Your task to perform on an android device: Is it going to rain this weekend? Image 0: 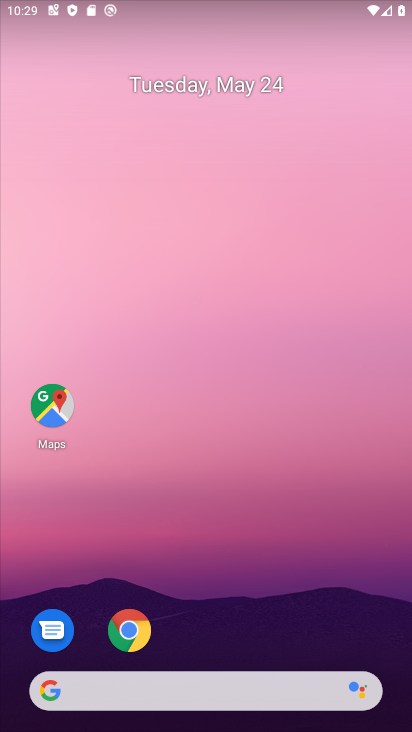
Step 0: press home button
Your task to perform on an android device: Is it going to rain this weekend? Image 1: 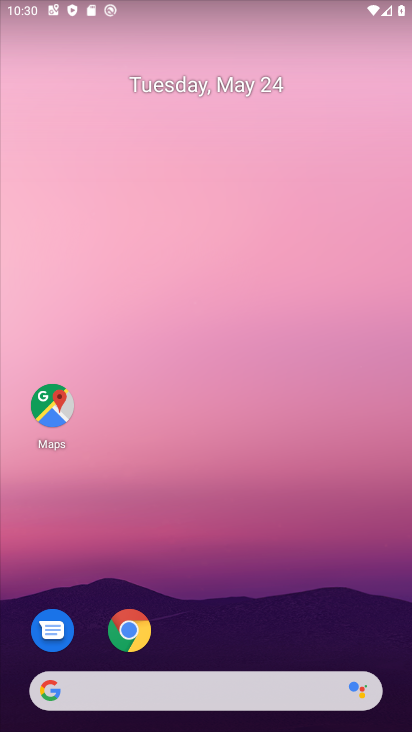
Step 1: drag from (226, 653) to (219, 64)
Your task to perform on an android device: Is it going to rain this weekend? Image 2: 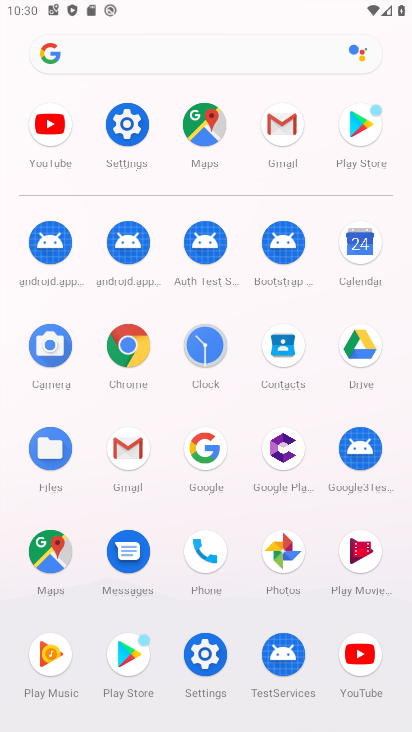
Step 2: press home button
Your task to perform on an android device: Is it going to rain this weekend? Image 3: 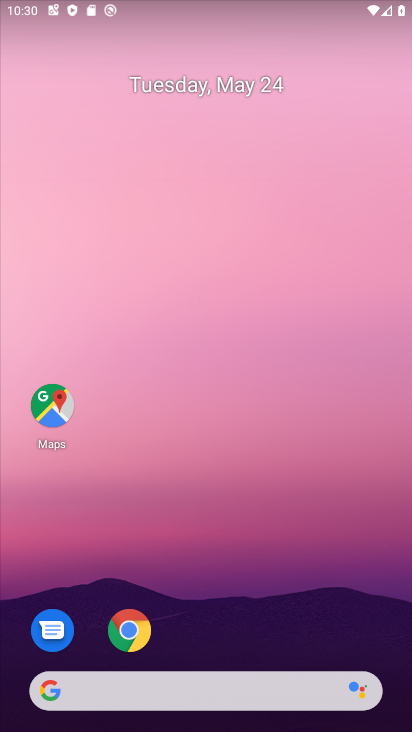
Step 3: drag from (1, 220) to (406, 244)
Your task to perform on an android device: Is it going to rain this weekend? Image 4: 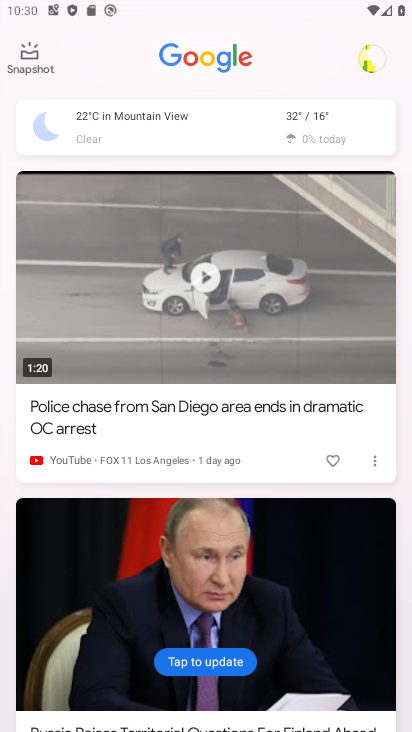
Step 4: click (290, 126)
Your task to perform on an android device: Is it going to rain this weekend? Image 5: 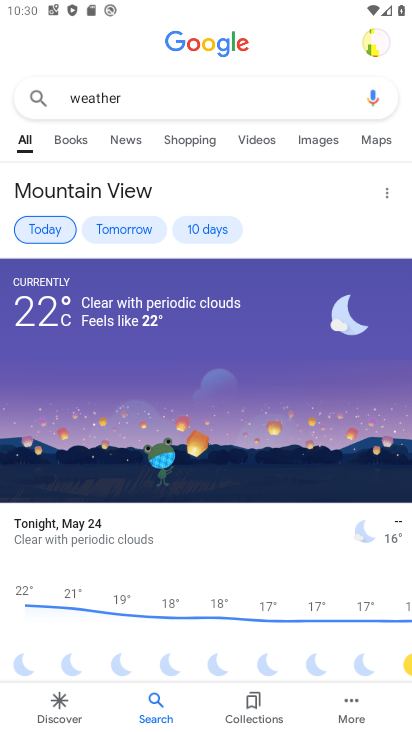
Step 5: drag from (246, 571) to (258, 162)
Your task to perform on an android device: Is it going to rain this weekend? Image 6: 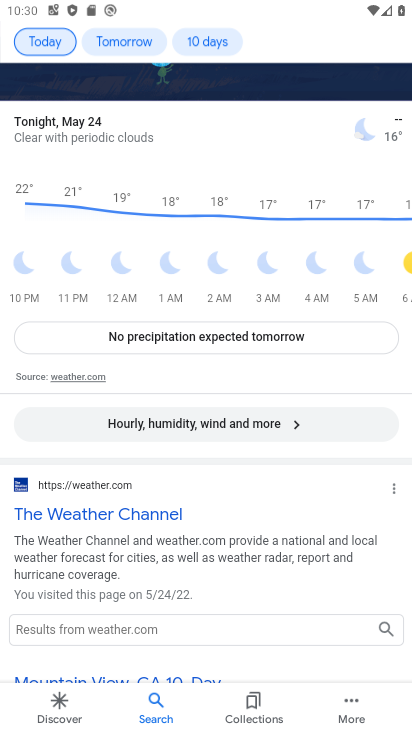
Step 6: drag from (374, 272) to (12, 247)
Your task to perform on an android device: Is it going to rain this weekend? Image 7: 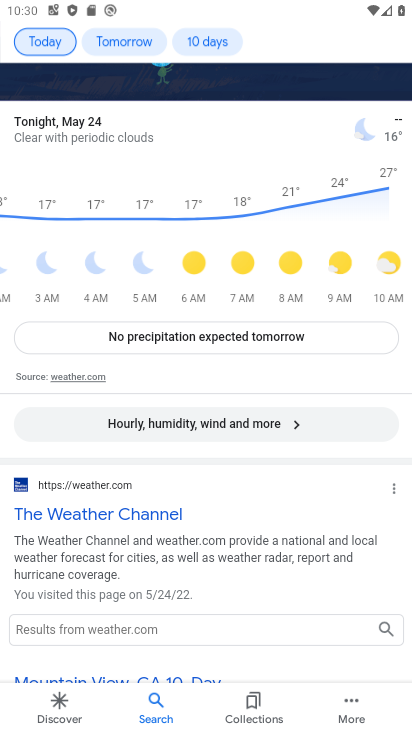
Step 7: drag from (386, 277) to (145, 272)
Your task to perform on an android device: Is it going to rain this weekend? Image 8: 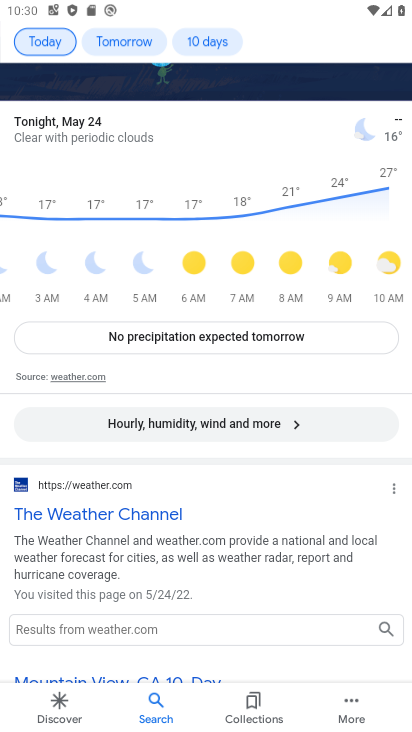
Step 8: drag from (241, 266) to (150, 257)
Your task to perform on an android device: Is it going to rain this weekend? Image 9: 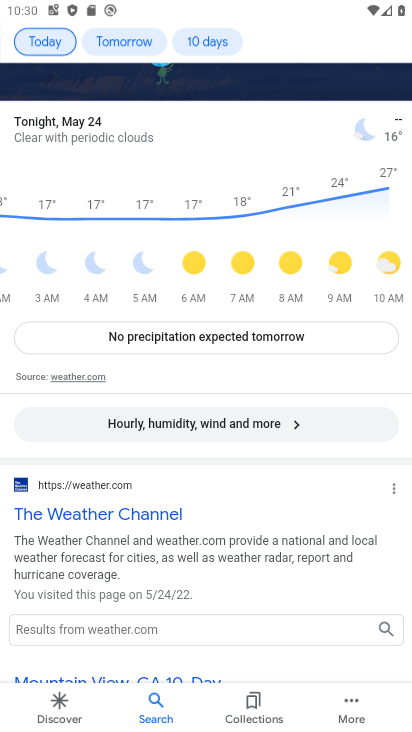
Step 9: click (210, 40)
Your task to perform on an android device: Is it going to rain this weekend? Image 10: 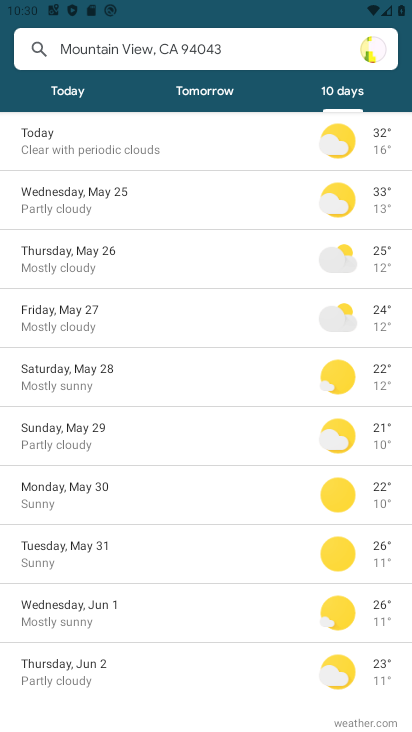
Step 10: task complete